Your task to perform on an android device: turn off priority inbox in the gmail app Image 0: 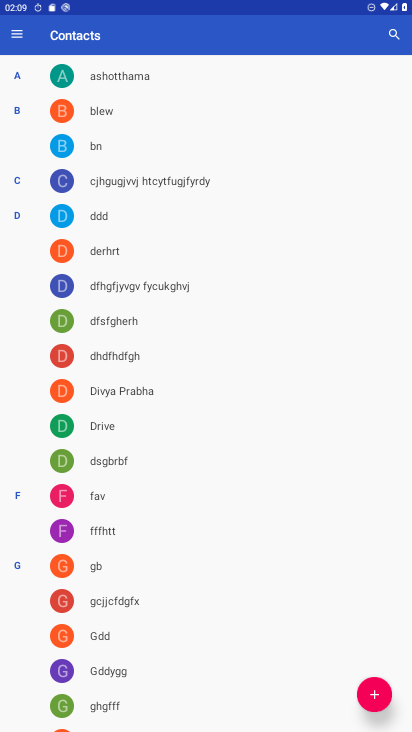
Step 0: press home button
Your task to perform on an android device: turn off priority inbox in the gmail app Image 1: 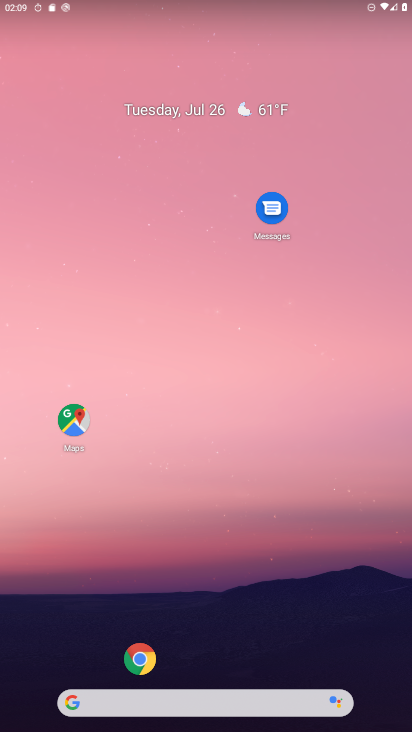
Step 1: drag from (11, 650) to (295, 157)
Your task to perform on an android device: turn off priority inbox in the gmail app Image 2: 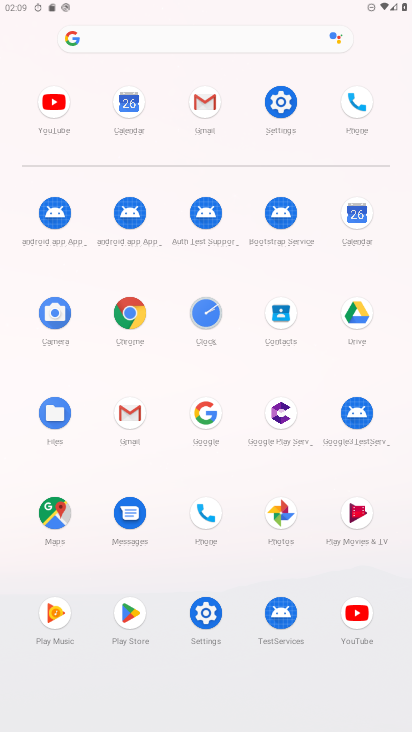
Step 2: click (126, 414)
Your task to perform on an android device: turn off priority inbox in the gmail app Image 3: 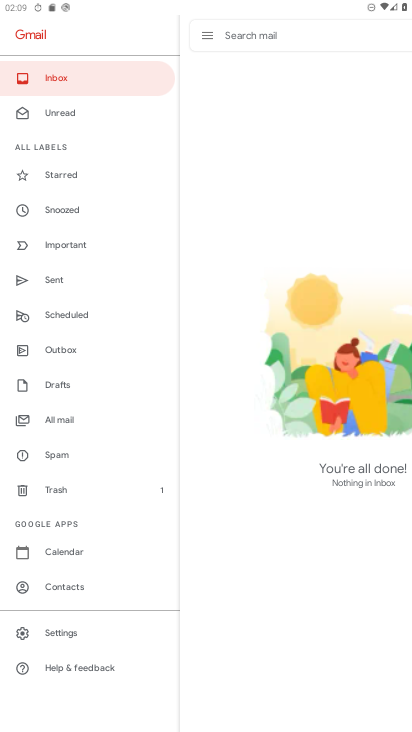
Step 3: click (54, 629)
Your task to perform on an android device: turn off priority inbox in the gmail app Image 4: 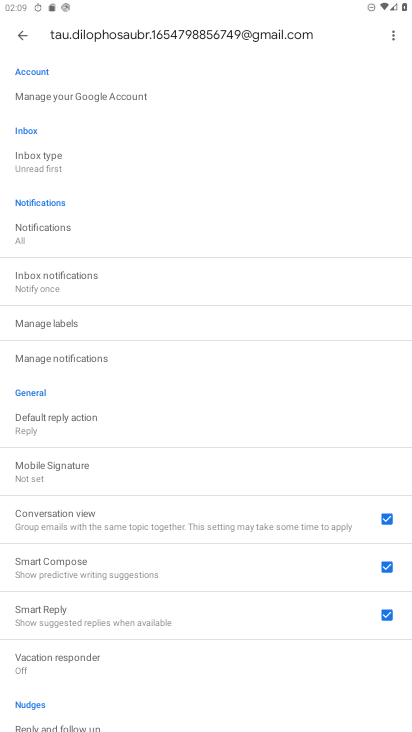
Step 4: click (63, 165)
Your task to perform on an android device: turn off priority inbox in the gmail app Image 5: 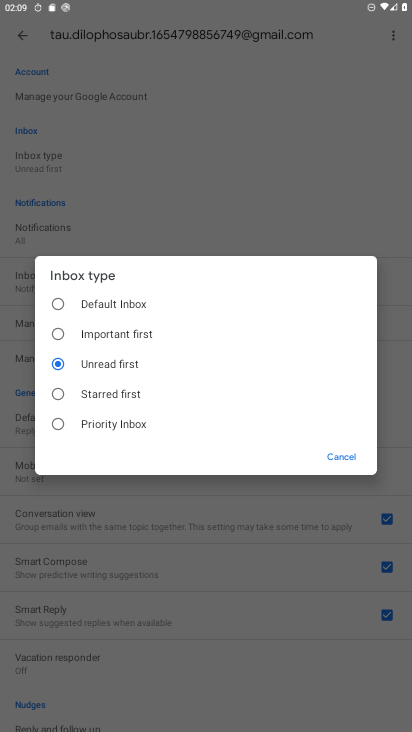
Step 5: click (73, 423)
Your task to perform on an android device: turn off priority inbox in the gmail app Image 6: 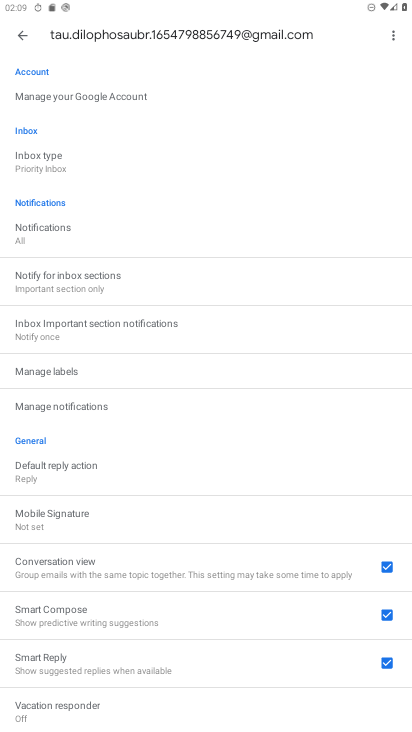
Step 6: task complete